Your task to perform on an android device: add a contact in the contacts app Image 0: 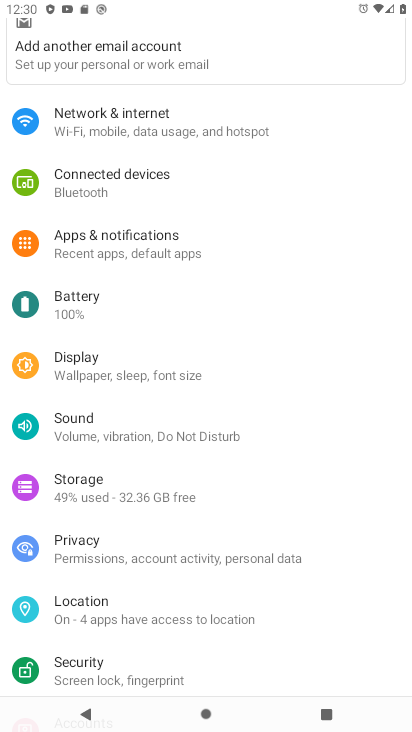
Step 0: press home button
Your task to perform on an android device: add a contact in the contacts app Image 1: 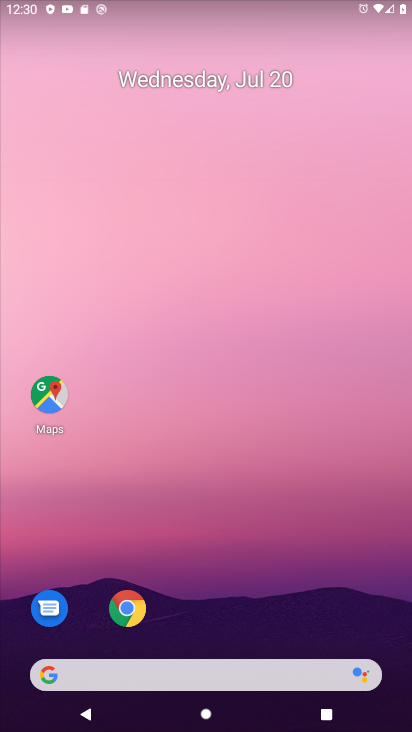
Step 1: drag from (180, 674) to (233, 159)
Your task to perform on an android device: add a contact in the contacts app Image 2: 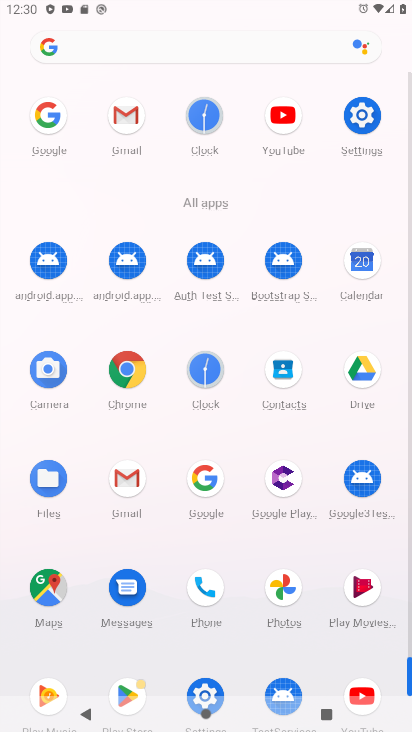
Step 2: click (284, 376)
Your task to perform on an android device: add a contact in the contacts app Image 3: 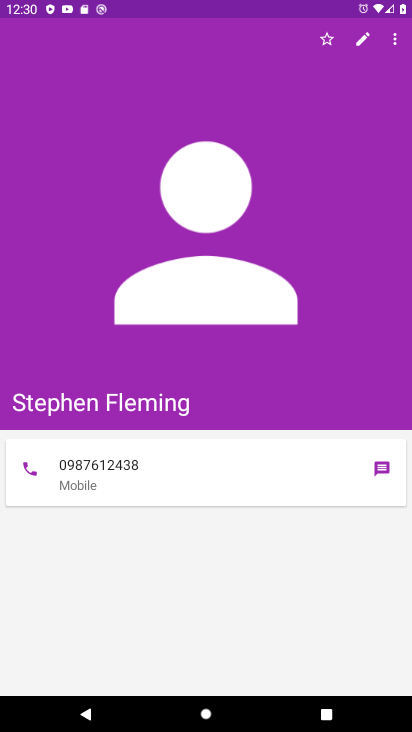
Step 3: press back button
Your task to perform on an android device: add a contact in the contacts app Image 4: 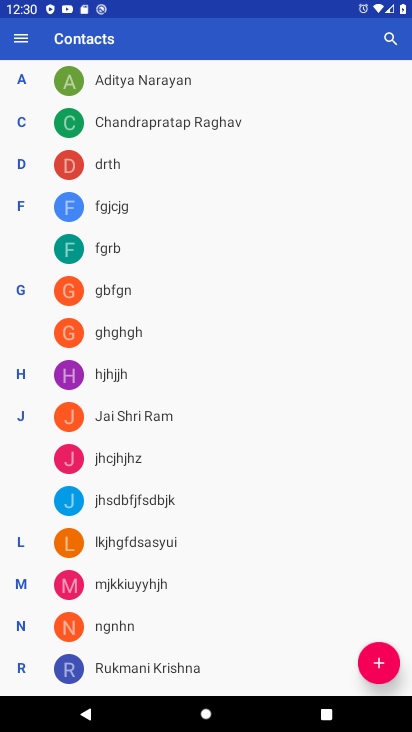
Step 4: click (378, 667)
Your task to perform on an android device: add a contact in the contacts app Image 5: 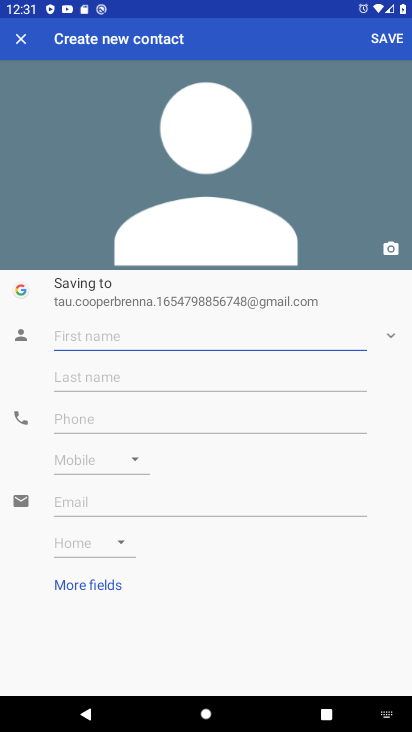
Step 5: type "Jonty"
Your task to perform on an android device: add a contact in the contacts app Image 6: 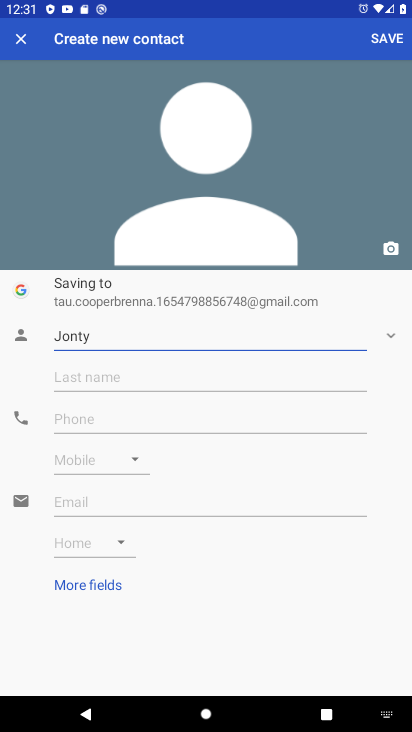
Step 6: click (245, 371)
Your task to perform on an android device: add a contact in the contacts app Image 7: 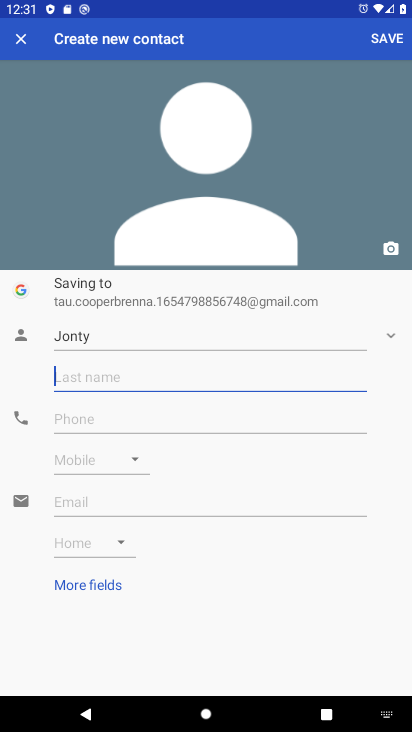
Step 7: type "Roods"
Your task to perform on an android device: add a contact in the contacts app Image 8: 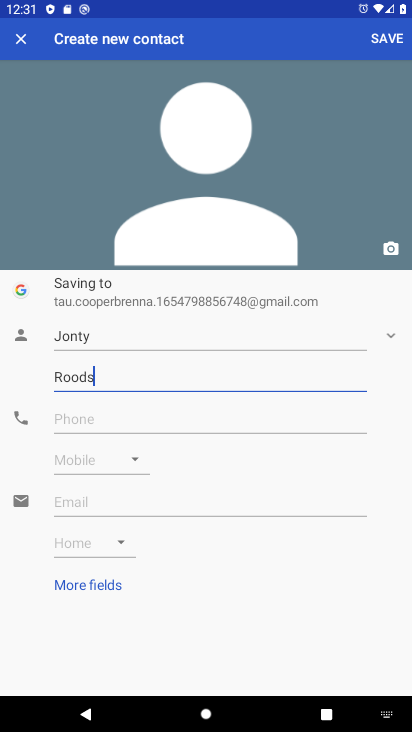
Step 8: click (284, 409)
Your task to perform on an android device: add a contact in the contacts app Image 9: 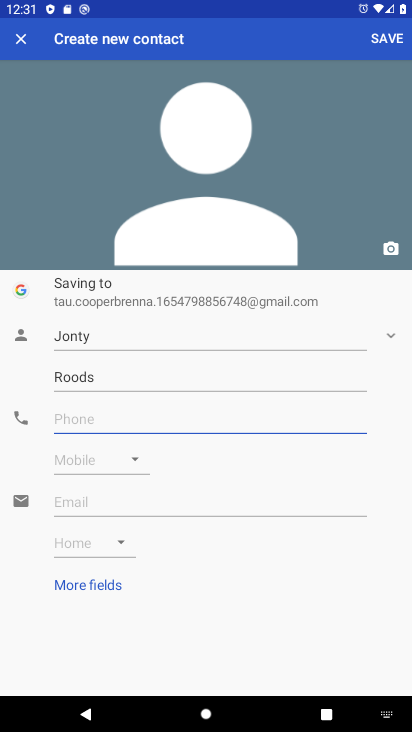
Step 9: type "0099887766554433"
Your task to perform on an android device: add a contact in the contacts app Image 10: 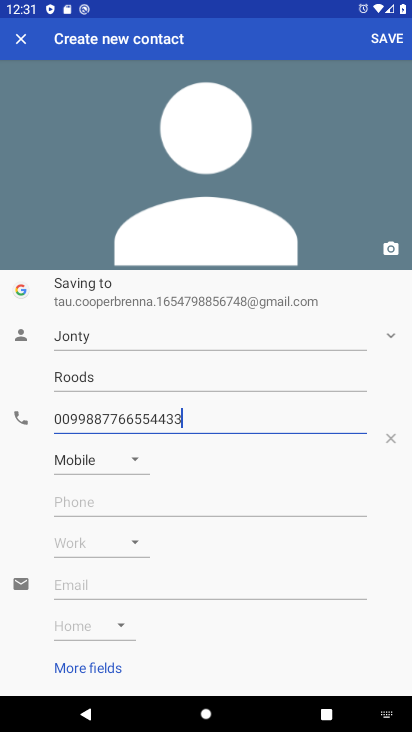
Step 10: click (388, 37)
Your task to perform on an android device: add a contact in the contacts app Image 11: 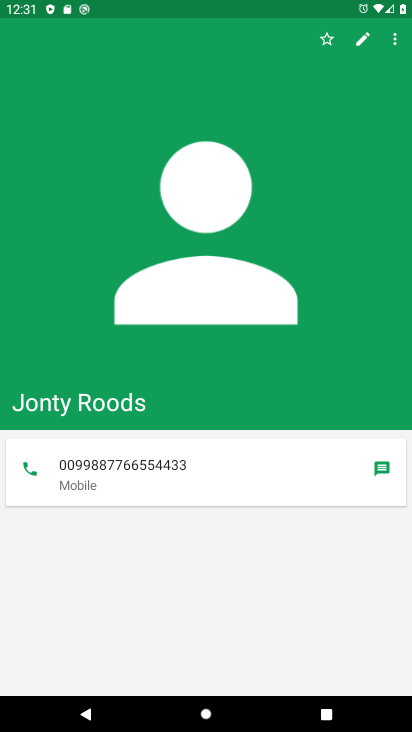
Step 11: task complete